Your task to perform on an android device: Open my contact list Image 0: 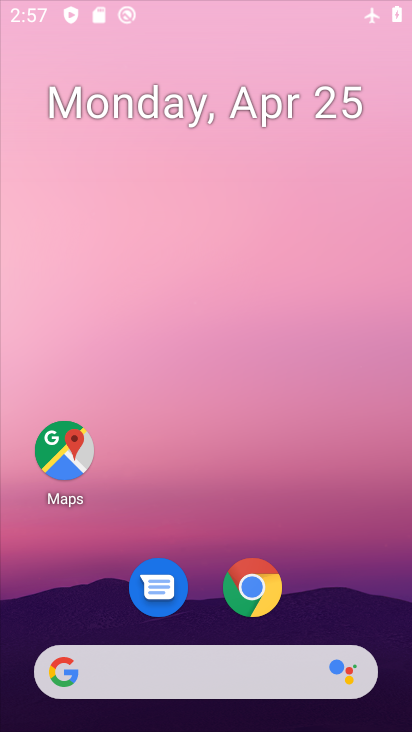
Step 0: click (407, 251)
Your task to perform on an android device: Open my contact list Image 1: 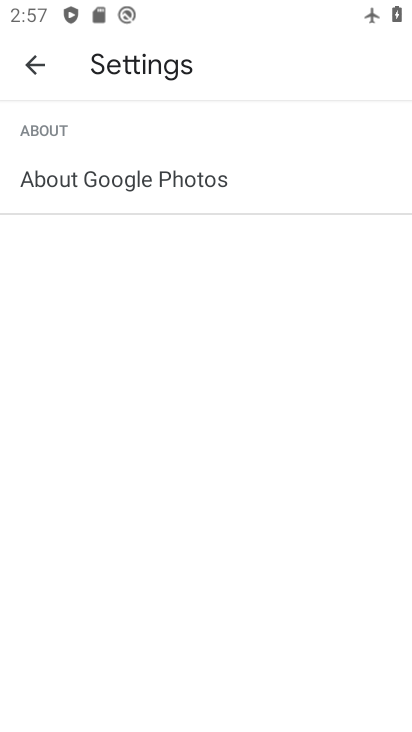
Step 1: press back button
Your task to perform on an android device: Open my contact list Image 2: 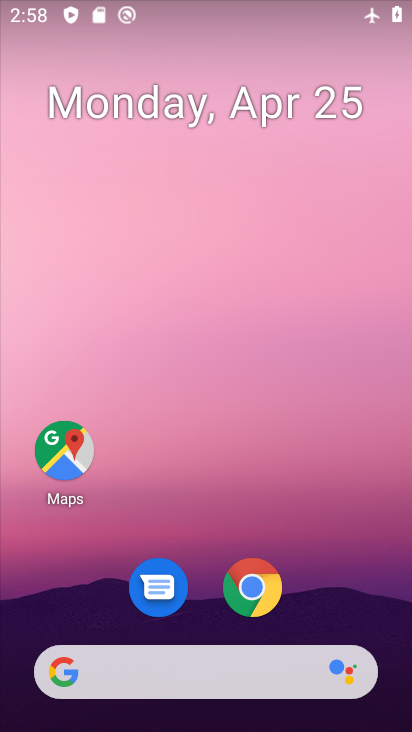
Step 2: drag from (291, 637) to (410, 73)
Your task to perform on an android device: Open my contact list Image 3: 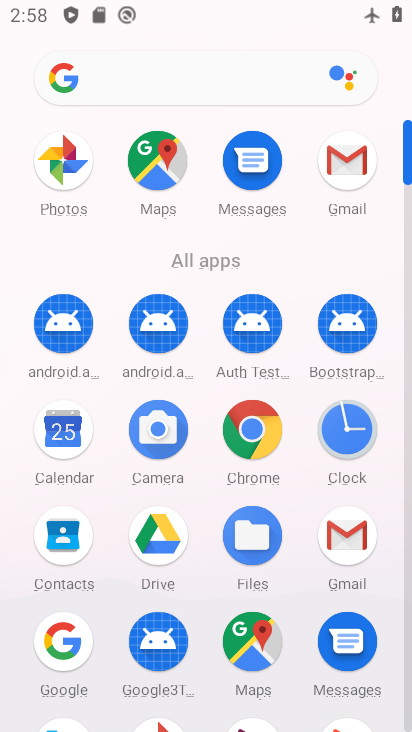
Step 3: drag from (196, 520) to (347, 236)
Your task to perform on an android device: Open my contact list Image 4: 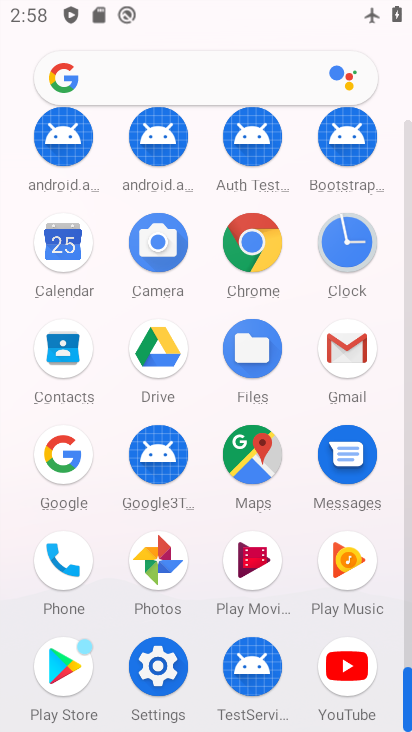
Step 4: click (60, 331)
Your task to perform on an android device: Open my contact list Image 5: 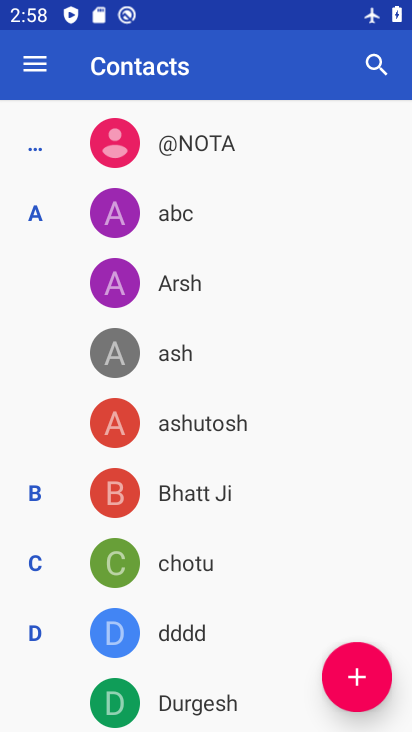
Step 5: task complete